Your task to perform on an android device: Do I have any events this weekend? Image 0: 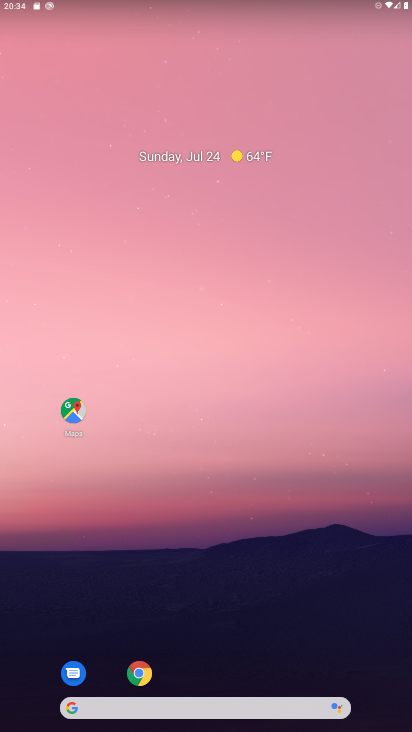
Step 0: drag from (293, 625) to (281, 462)
Your task to perform on an android device: Do I have any events this weekend? Image 1: 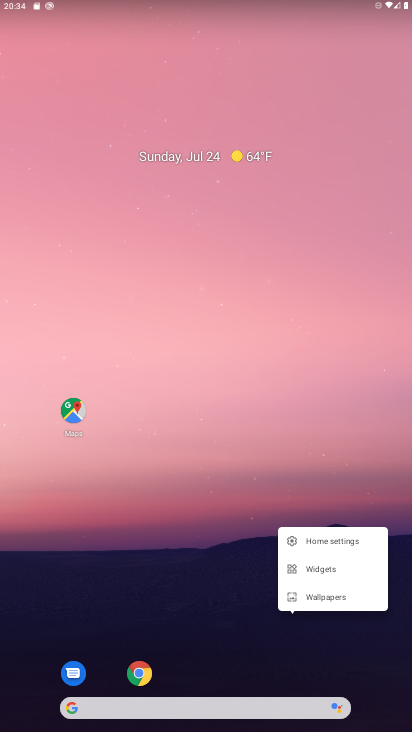
Step 1: click (224, 468)
Your task to perform on an android device: Do I have any events this weekend? Image 2: 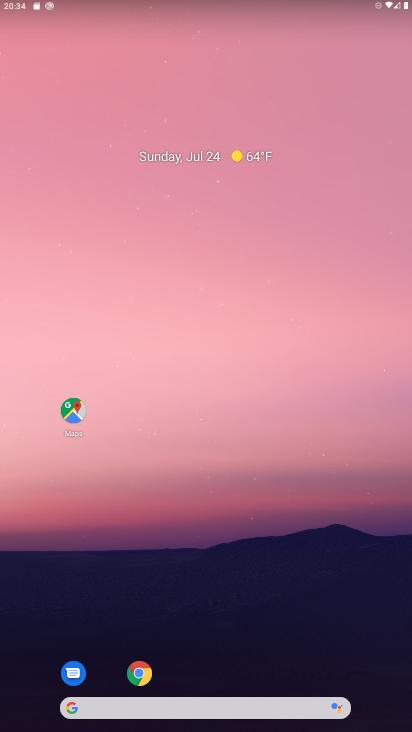
Step 2: drag from (277, 655) to (283, 205)
Your task to perform on an android device: Do I have any events this weekend? Image 3: 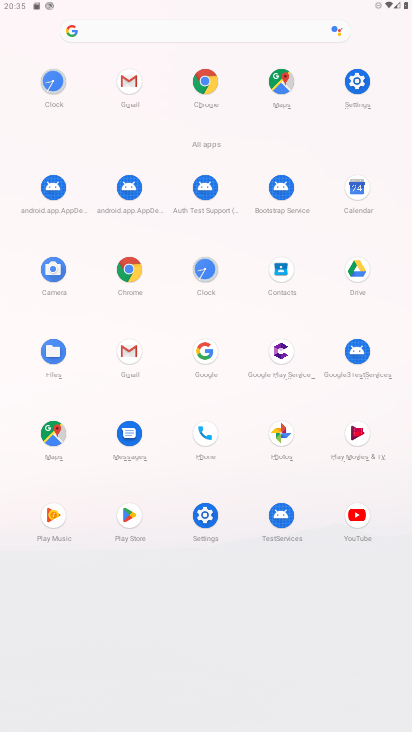
Step 3: click (349, 197)
Your task to perform on an android device: Do I have any events this weekend? Image 4: 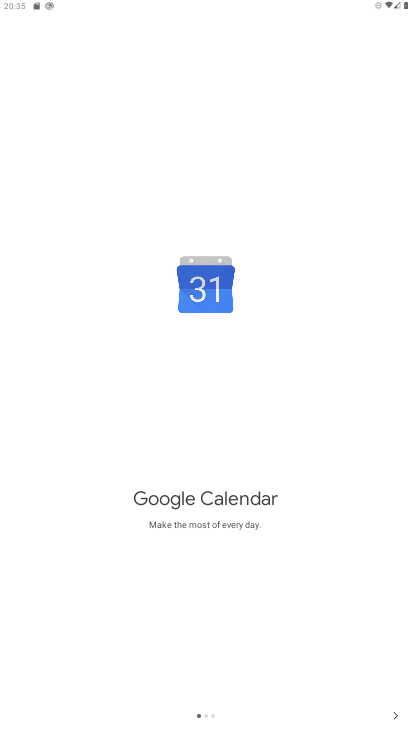
Step 4: click (393, 719)
Your task to perform on an android device: Do I have any events this weekend? Image 5: 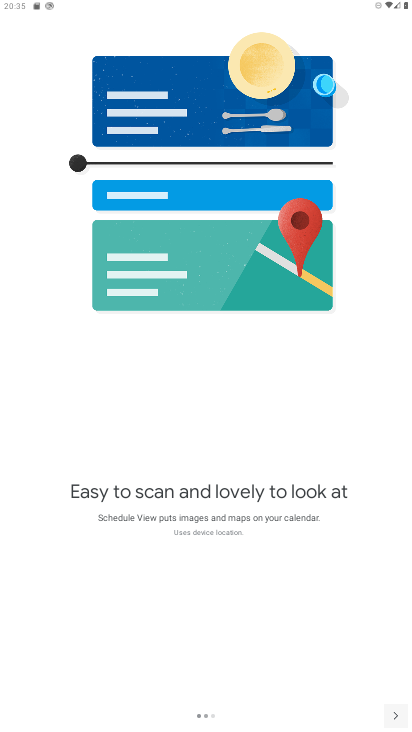
Step 5: click (393, 719)
Your task to perform on an android device: Do I have any events this weekend? Image 6: 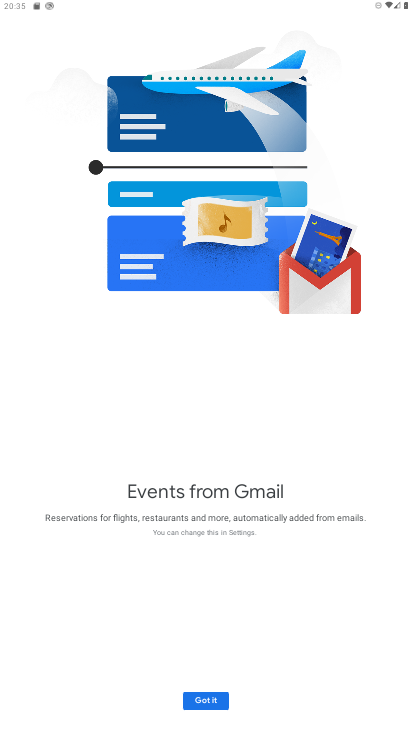
Step 6: click (192, 704)
Your task to perform on an android device: Do I have any events this weekend? Image 7: 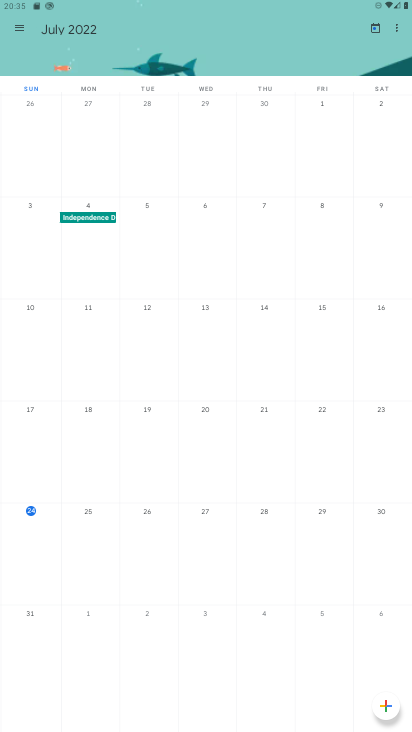
Step 7: click (22, 37)
Your task to perform on an android device: Do I have any events this weekend? Image 8: 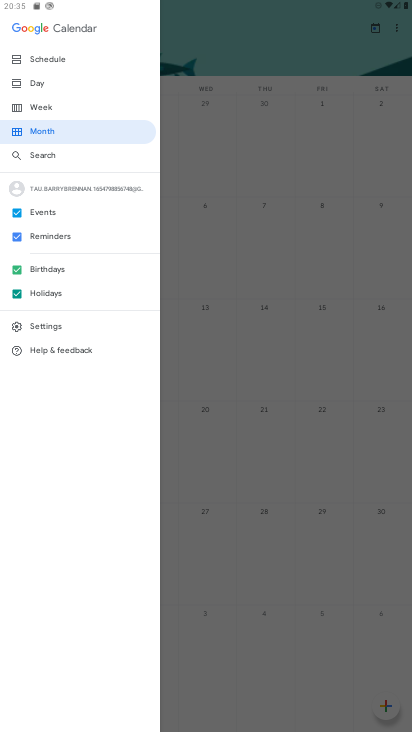
Step 8: click (45, 79)
Your task to perform on an android device: Do I have any events this weekend? Image 9: 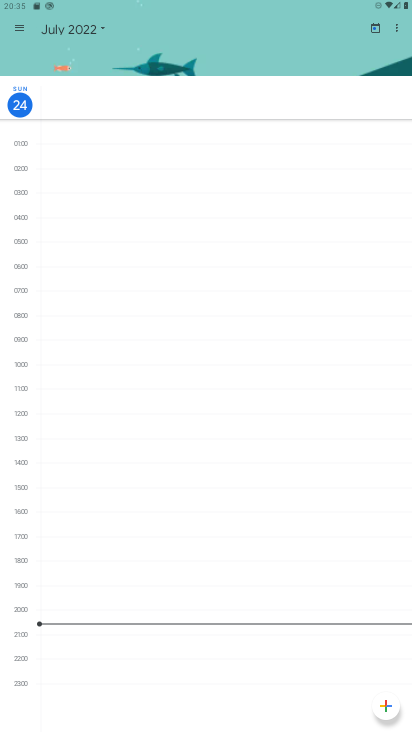
Step 9: click (20, 32)
Your task to perform on an android device: Do I have any events this weekend? Image 10: 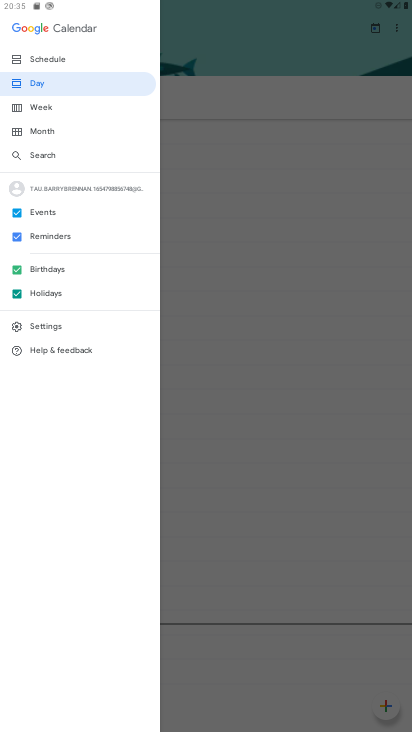
Step 10: click (201, 54)
Your task to perform on an android device: Do I have any events this weekend? Image 11: 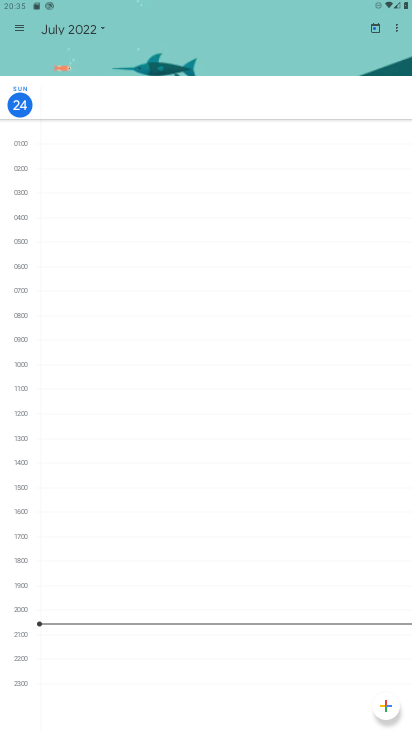
Step 11: click (89, 27)
Your task to perform on an android device: Do I have any events this weekend? Image 12: 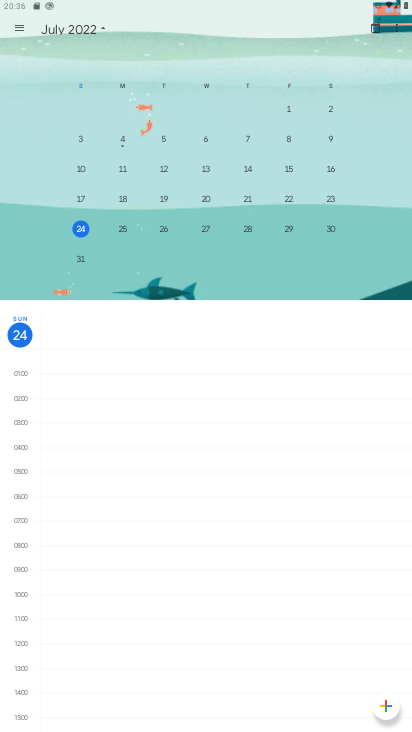
Step 12: click (337, 236)
Your task to perform on an android device: Do I have any events this weekend? Image 13: 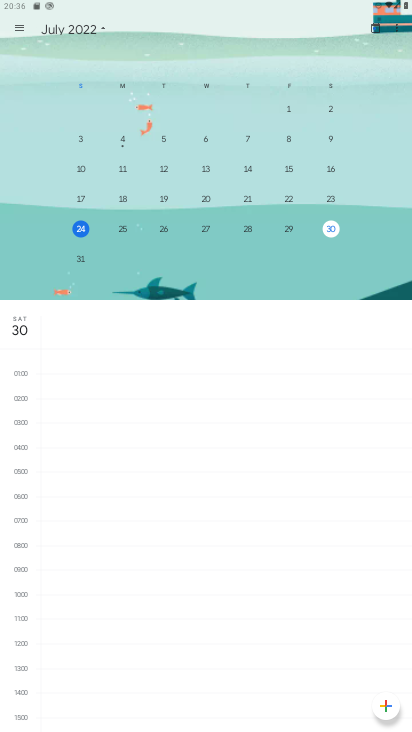
Step 13: task complete